Your task to perform on an android device: turn on airplane mode Image 0: 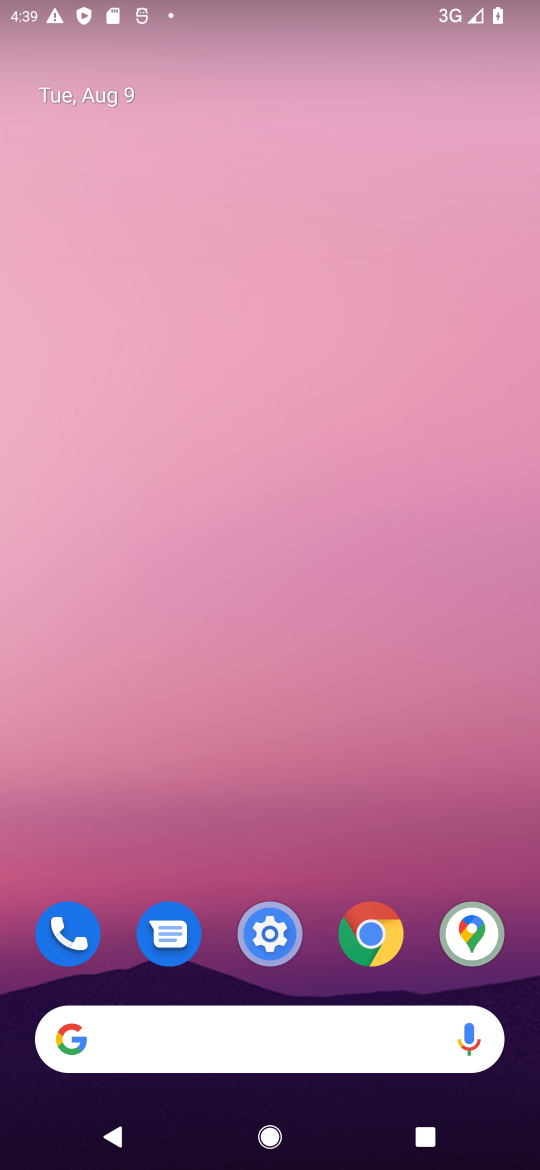
Step 0: click (303, 960)
Your task to perform on an android device: turn on airplane mode Image 1: 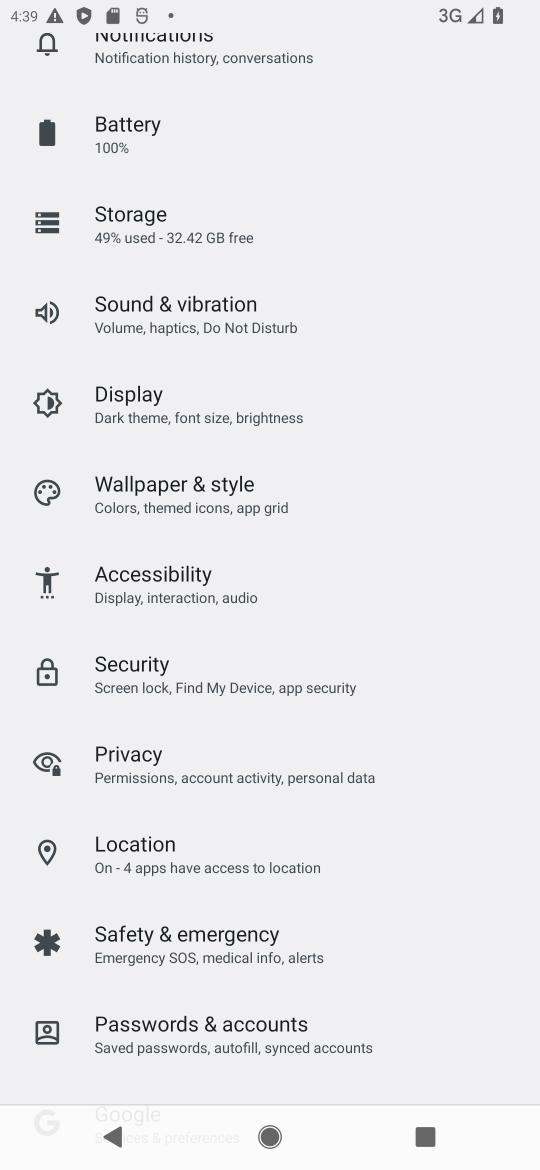
Step 1: drag from (245, 209) to (335, 751)
Your task to perform on an android device: turn on airplane mode Image 2: 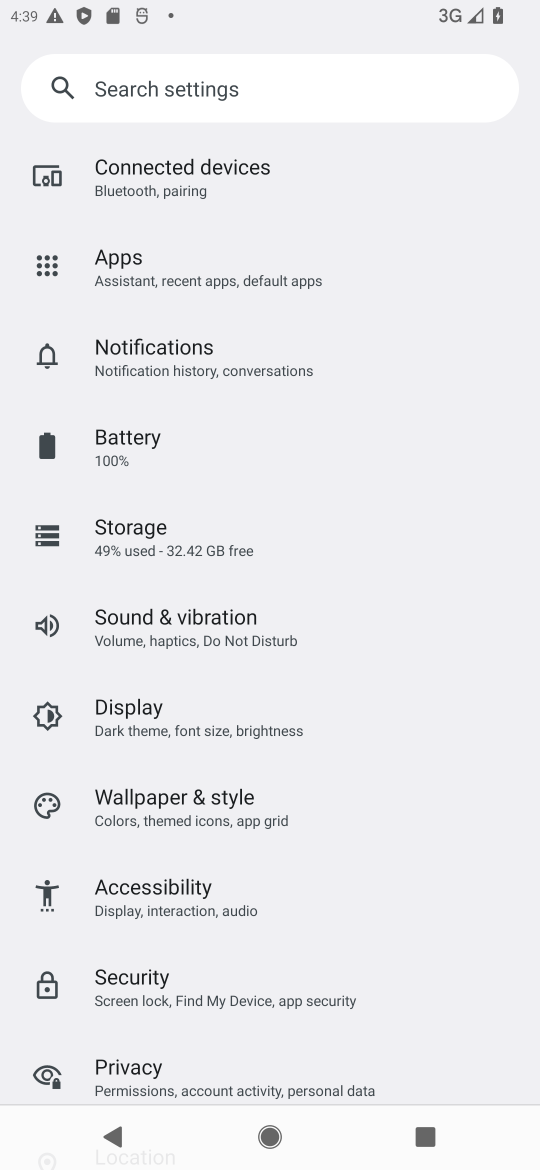
Step 2: drag from (187, 246) to (197, 912)
Your task to perform on an android device: turn on airplane mode Image 3: 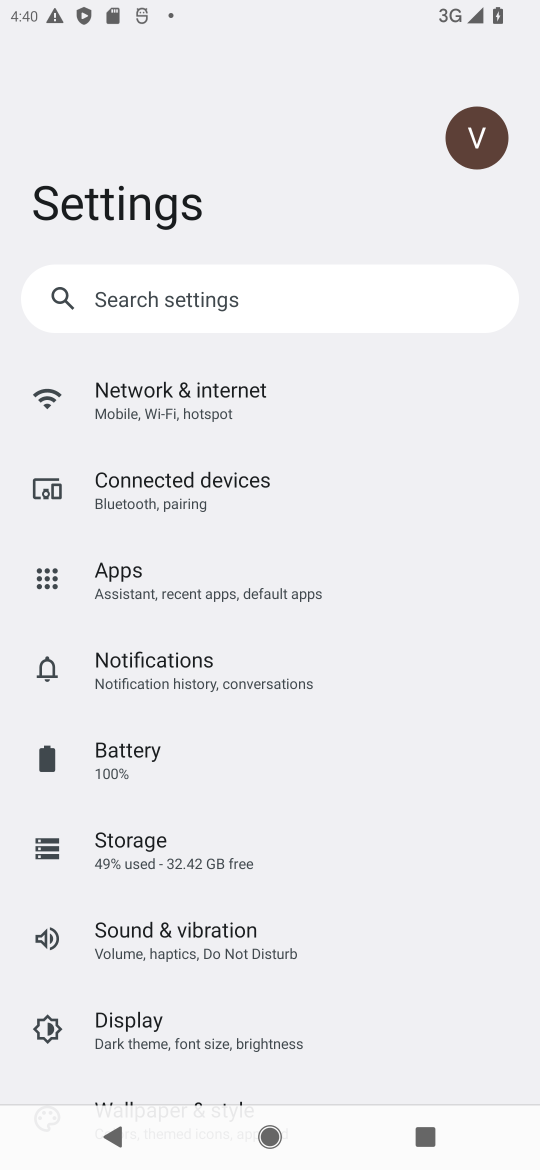
Step 3: click (150, 376)
Your task to perform on an android device: turn on airplane mode Image 4: 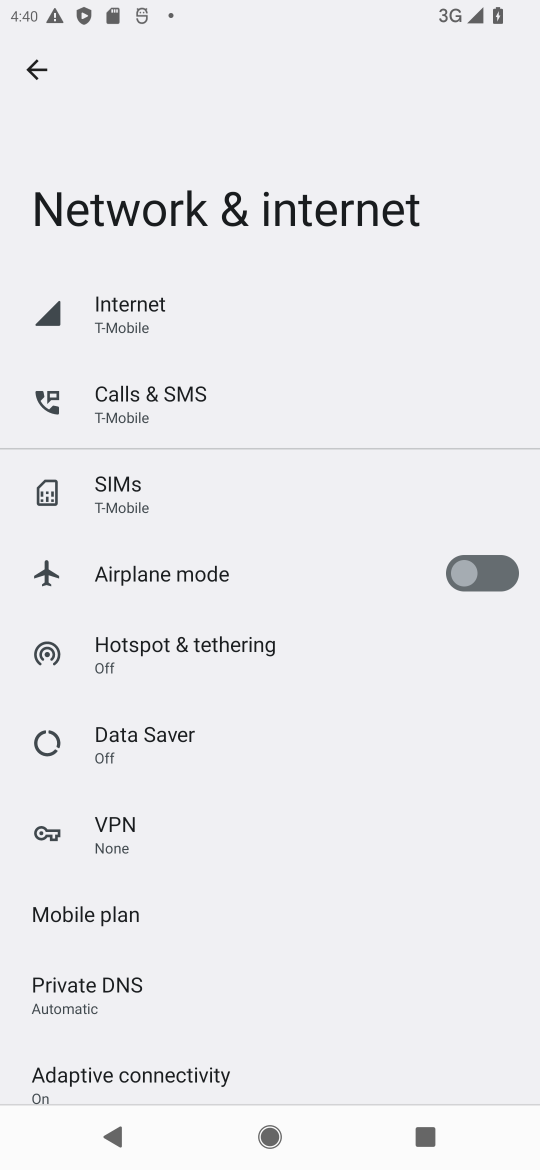
Step 4: click (167, 300)
Your task to perform on an android device: turn on airplane mode Image 5: 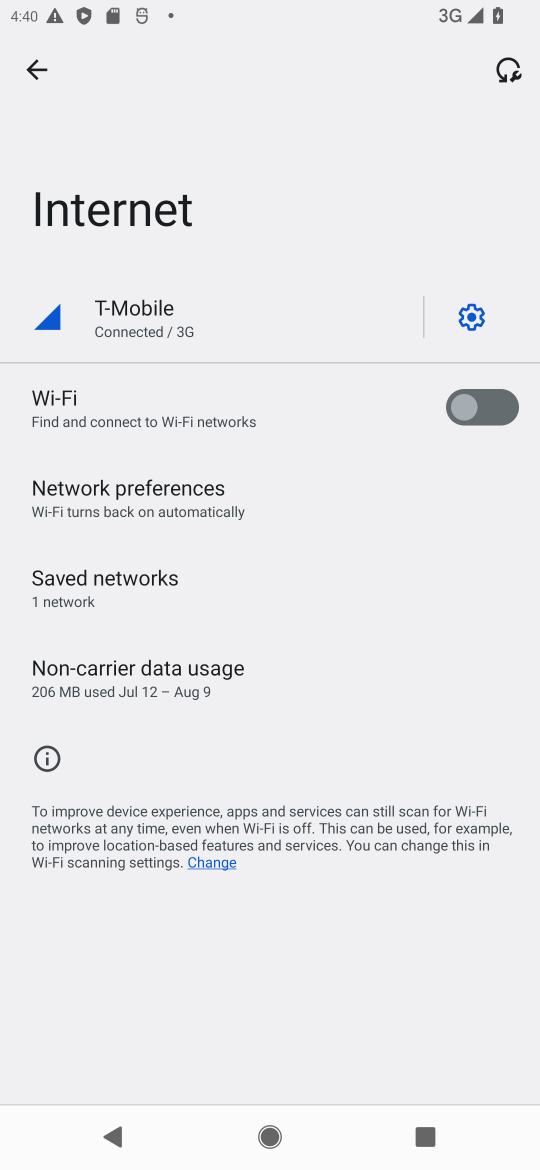
Step 5: task complete